Your task to perform on an android device: Do I have any events this weekend? Image 0: 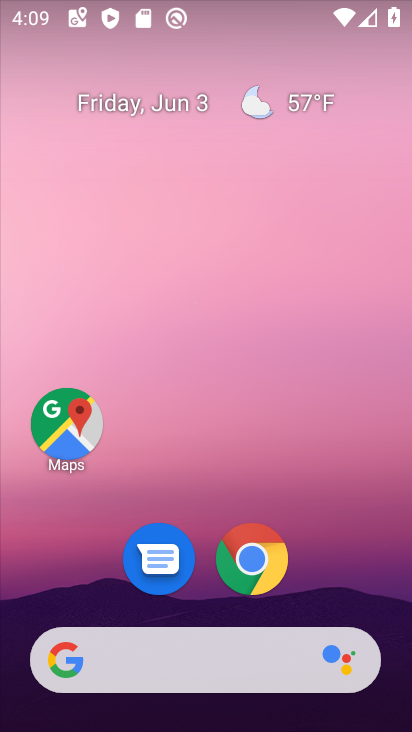
Step 0: drag from (310, 581) to (308, 120)
Your task to perform on an android device: Do I have any events this weekend? Image 1: 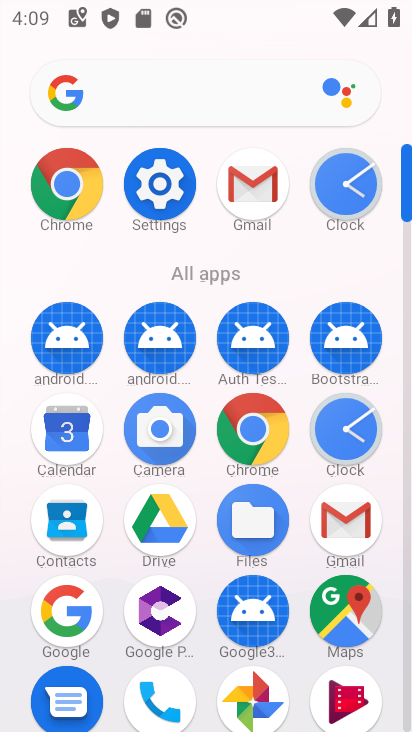
Step 1: click (54, 432)
Your task to perform on an android device: Do I have any events this weekend? Image 2: 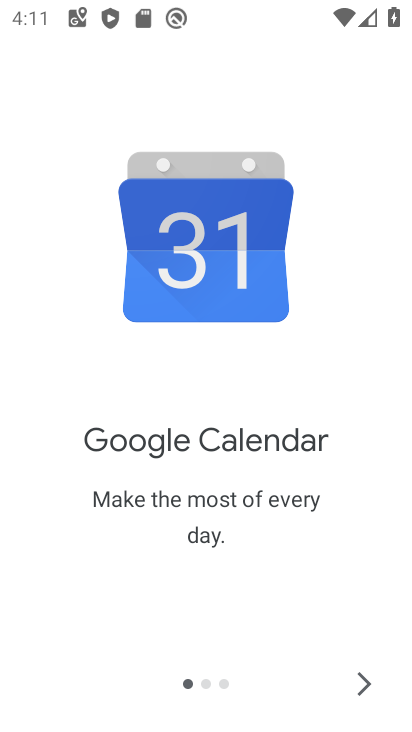
Step 2: click (361, 690)
Your task to perform on an android device: Do I have any events this weekend? Image 3: 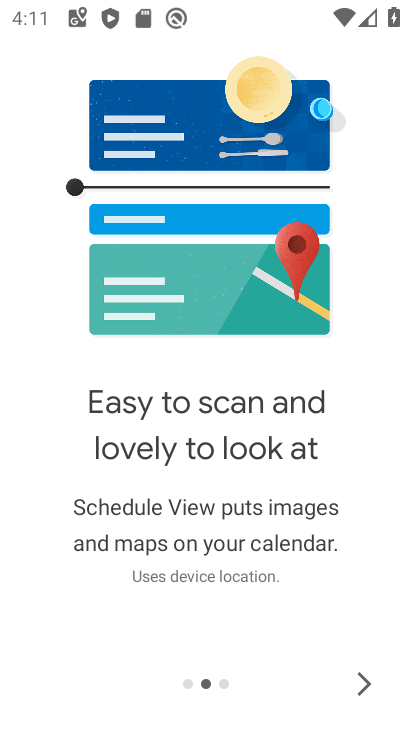
Step 3: click (361, 690)
Your task to perform on an android device: Do I have any events this weekend? Image 4: 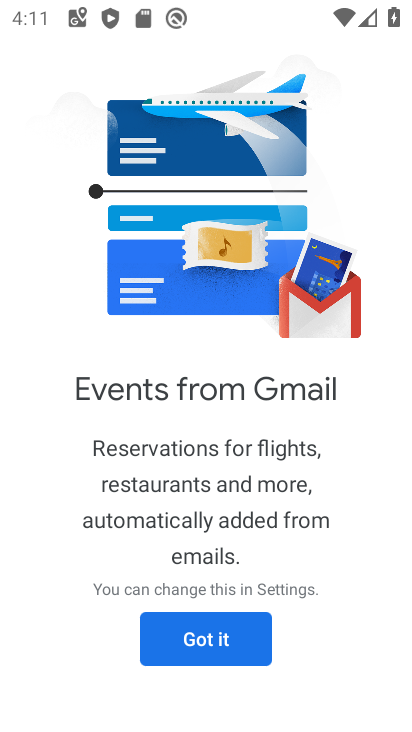
Step 4: click (192, 644)
Your task to perform on an android device: Do I have any events this weekend? Image 5: 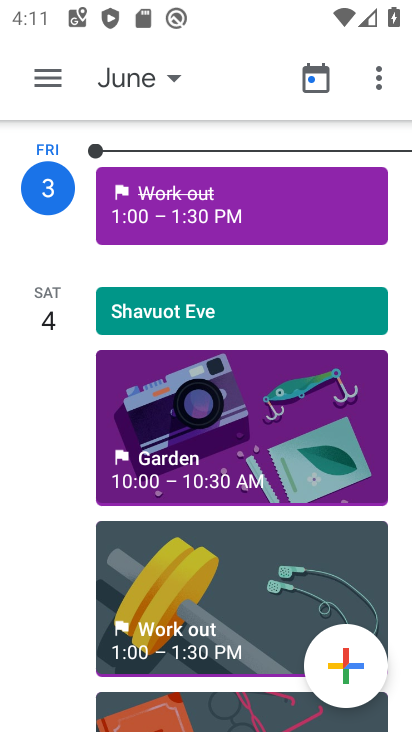
Step 5: press home button
Your task to perform on an android device: Do I have any events this weekend? Image 6: 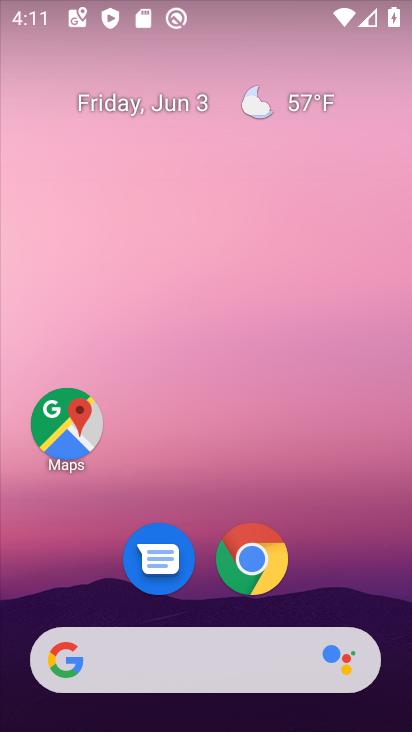
Step 6: drag from (314, 579) to (314, 63)
Your task to perform on an android device: Do I have any events this weekend? Image 7: 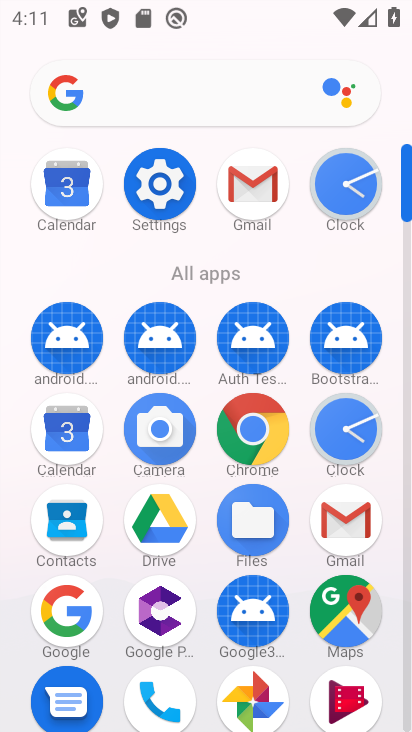
Step 7: click (71, 427)
Your task to perform on an android device: Do I have any events this weekend? Image 8: 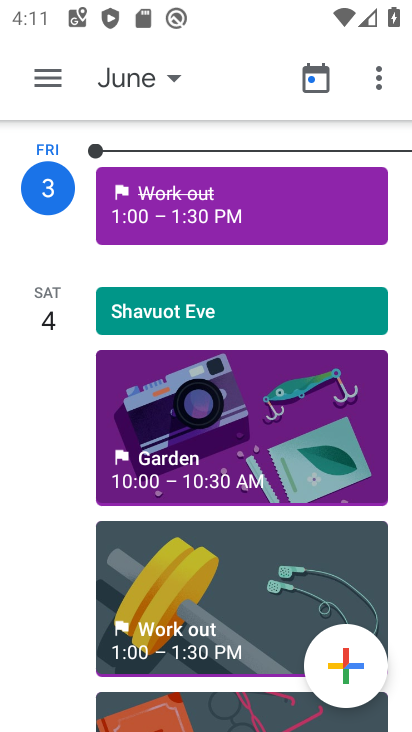
Step 8: task complete